Your task to perform on an android device: Show me the alarms in the clock app Image 0: 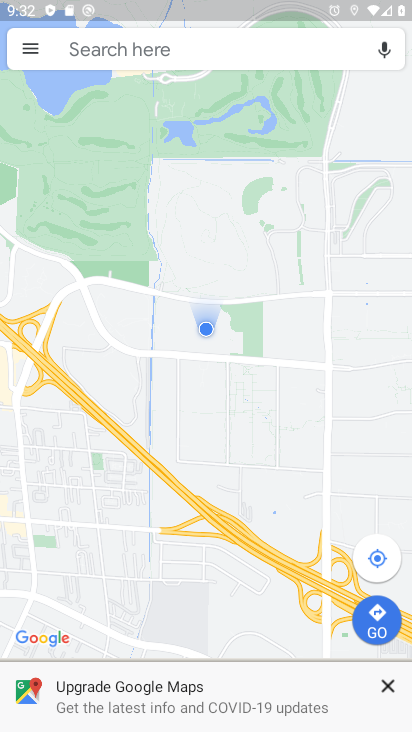
Step 0: press home button
Your task to perform on an android device: Show me the alarms in the clock app Image 1: 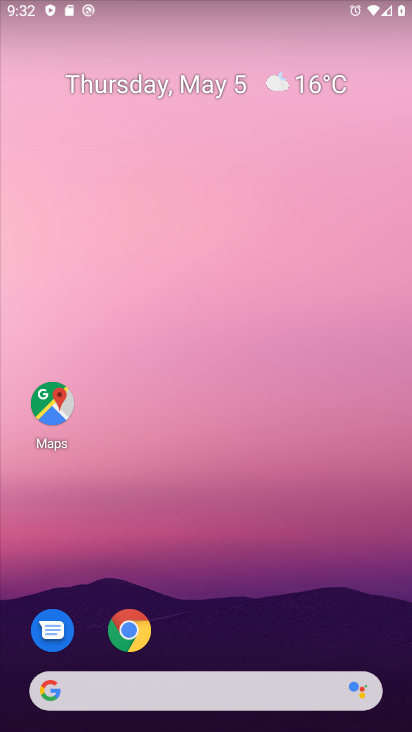
Step 1: drag from (225, 582) to (215, 153)
Your task to perform on an android device: Show me the alarms in the clock app Image 2: 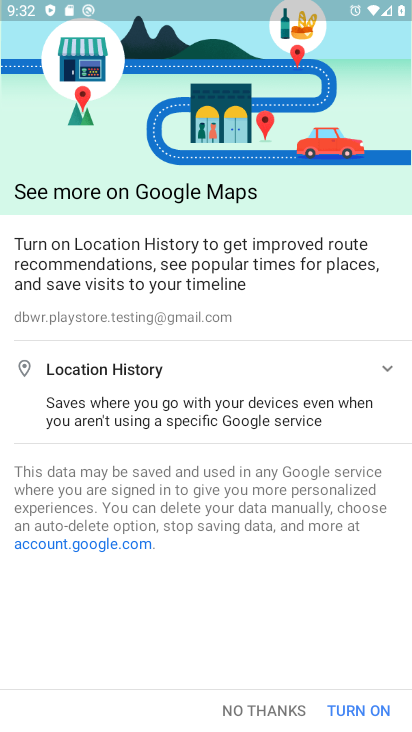
Step 2: press back button
Your task to perform on an android device: Show me the alarms in the clock app Image 3: 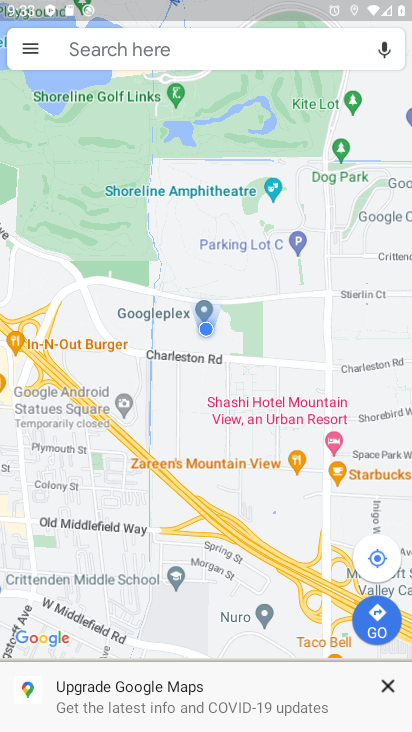
Step 3: press home button
Your task to perform on an android device: Show me the alarms in the clock app Image 4: 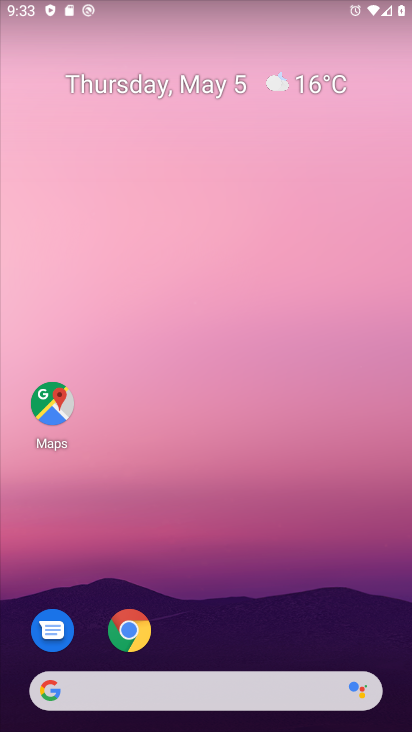
Step 4: drag from (172, 540) to (193, 70)
Your task to perform on an android device: Show me the alarms in the clock app Image 5: 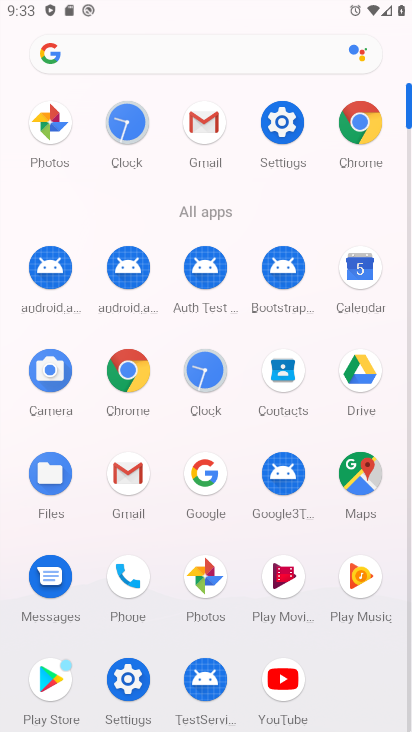
Step 5: click (204, 384)
Your task to perform on an android device: Show me the alarms in the clock app Image 6: 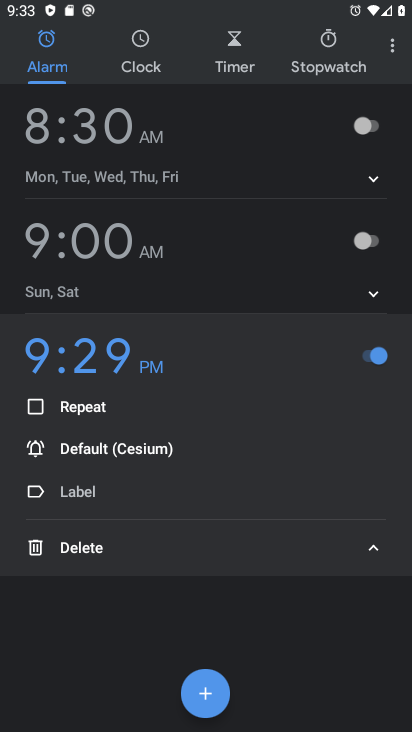
Step 6: task complete